Your task to perform on an android device: Search for pizza restaurants on Maps Image 0: 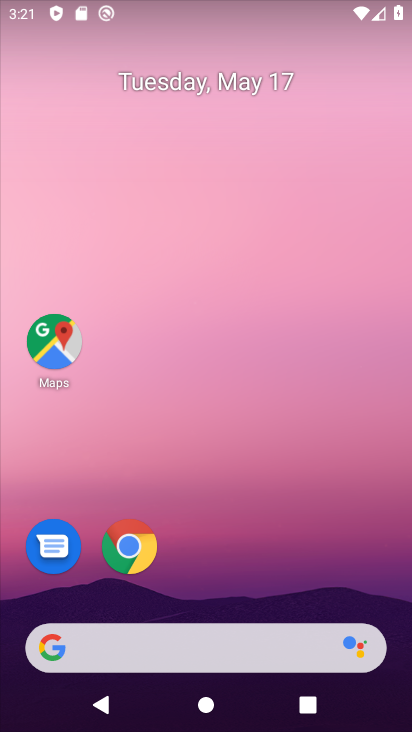
Step 0: click (55, 336)
Your task to perform on an android device: Search for pizza restaurants on Maps Image 1: 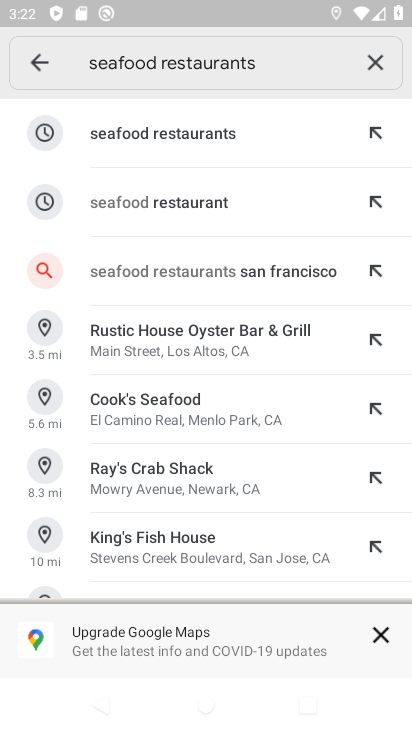
Step 1: click (370, 69)
Your task to perform on an android device: Search for pizza restaurants on Maps Image 2: 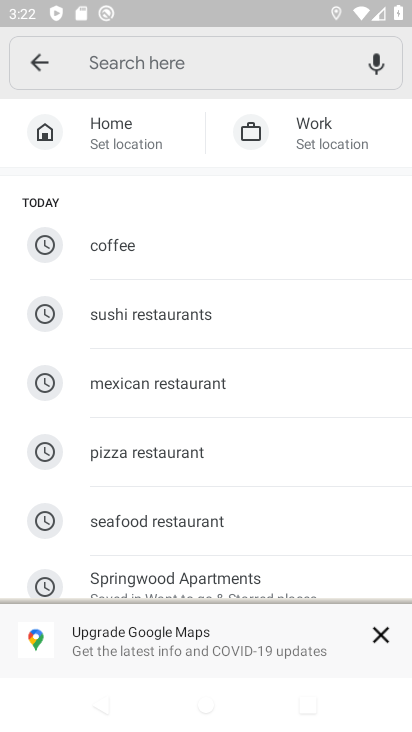
Step 2: type "pizza restaurants"
Your task to perform on an android device: Search for pizza restaurants on Maps Image 3: 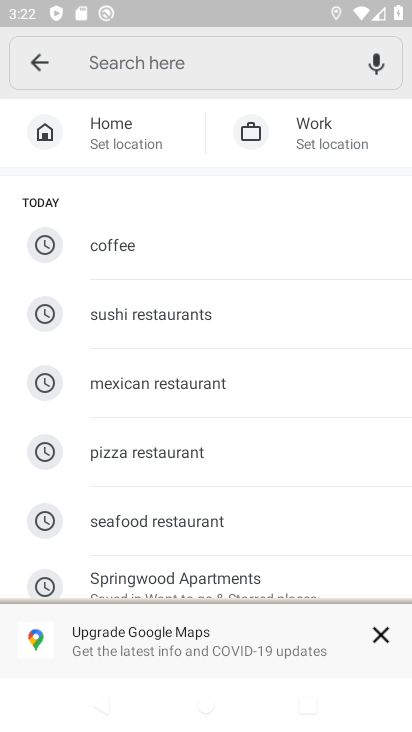
Step 3: click (147, 65)
Your task to perform on an android device: Search for pizza restaurants on Maps Image 4: 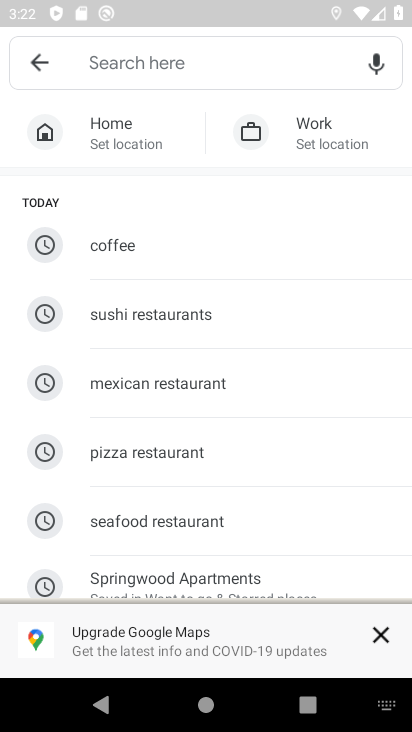
Step 4: type "pizza restaurants"
Your task to perform on an android device: Search for pizza restaurants on Maps Image 5: 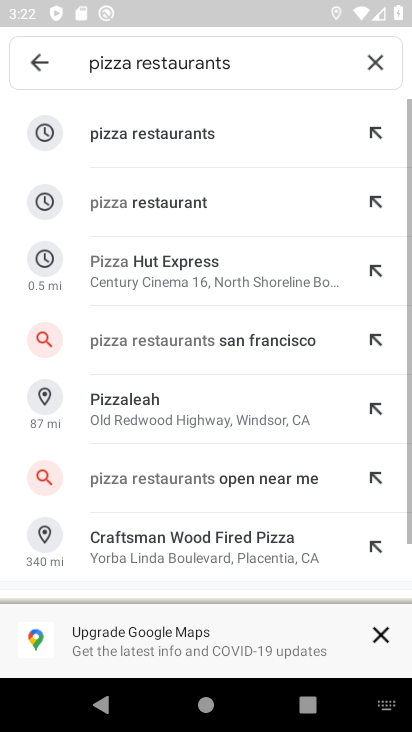
Step 5: click (204, 147)
Your task to perform on an android device: Search for pizza restaurants on Maps Image 6: 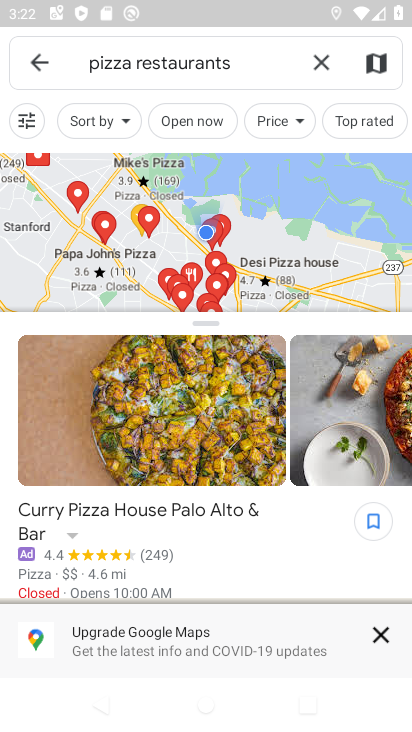
Step 6: task complete